Your task to perform on an android device: turn on the 12-hour format for clock Image 0: 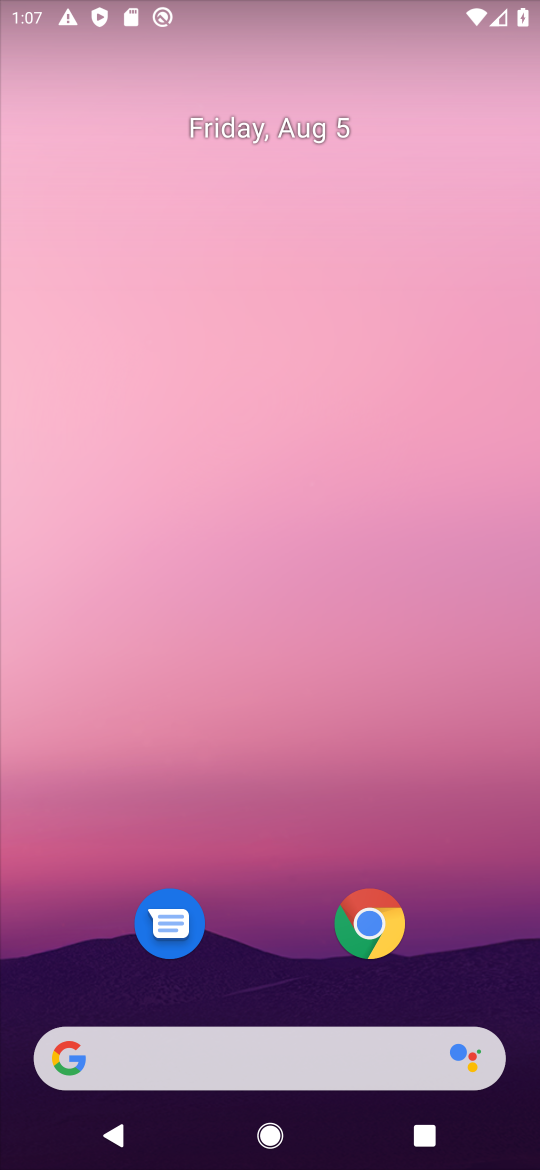
Step 0: drag from (269, 975) to (197, 58)
Your task to perform on an android device: turn on the 12-hour format for clock Image 1: 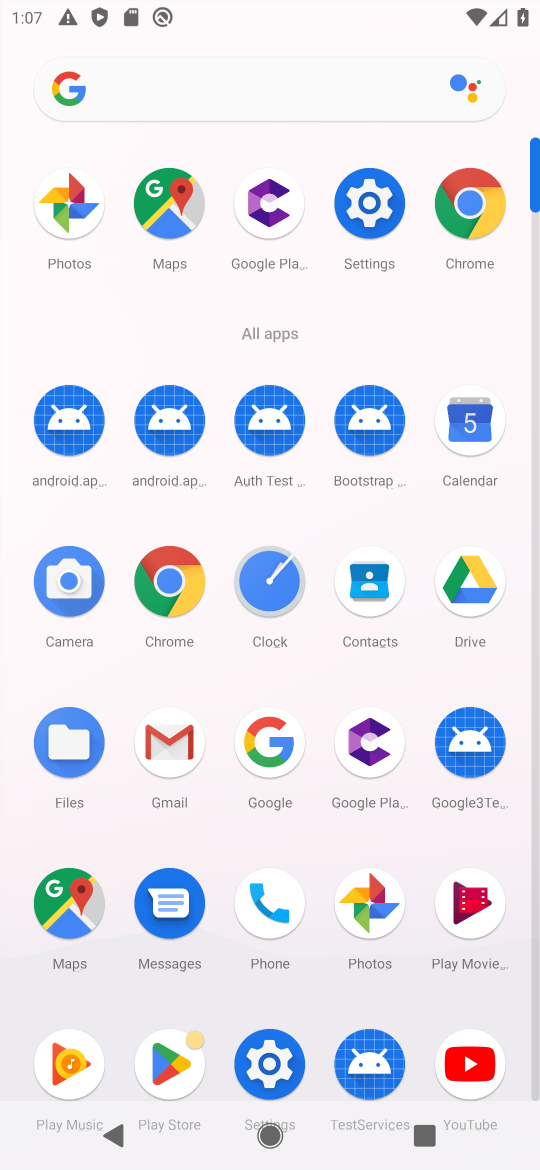
Step 1: click (269, 600)
Your task to perform on an android device: turn on the 12-hour format for clock Image 2: 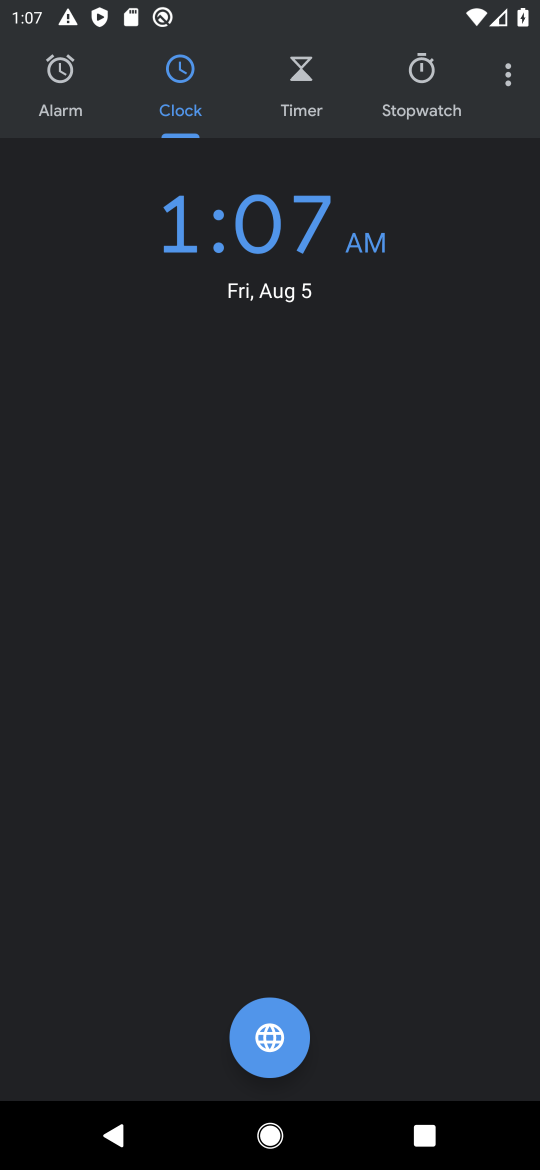
Step 2: drag from (500, 79) to (330, 143)
Your task to perform on an android device: turn on the 12-hour format for clock Image 3: 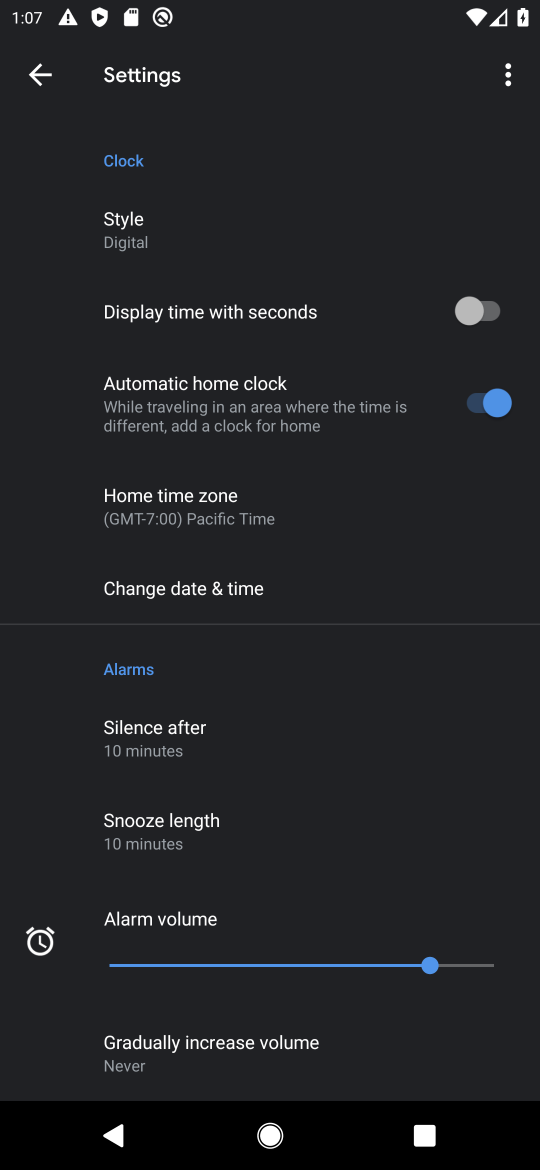
Step 3: click (158, 624)
Your task to perform on an android device: turn on the 12-hour format for clock Image 4: 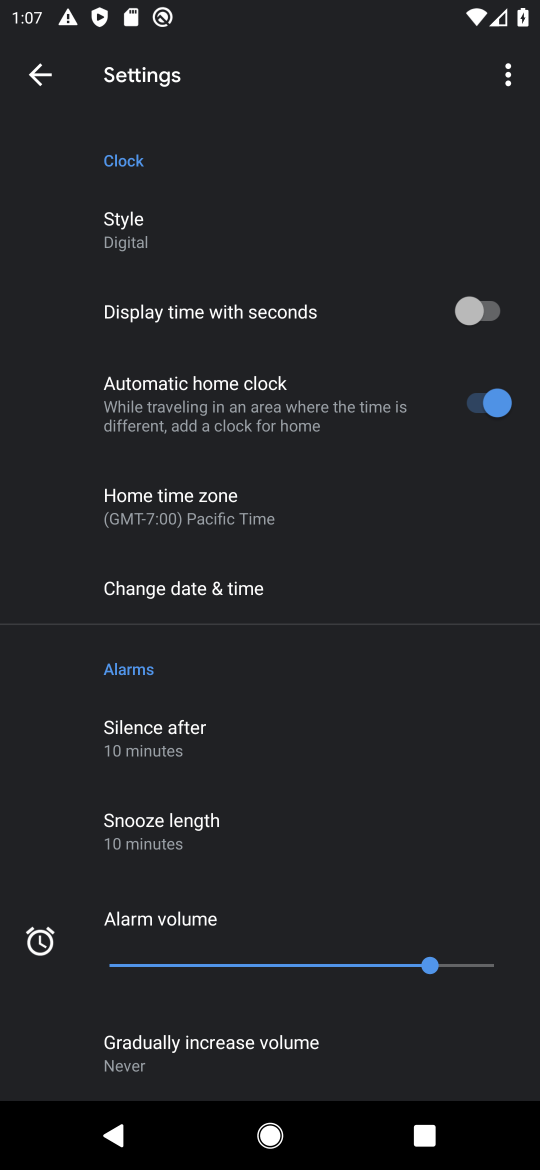
Step 4: click (181, 615)
Your task to perform on an android device: turn on the 12-hour format for clock Image 5: 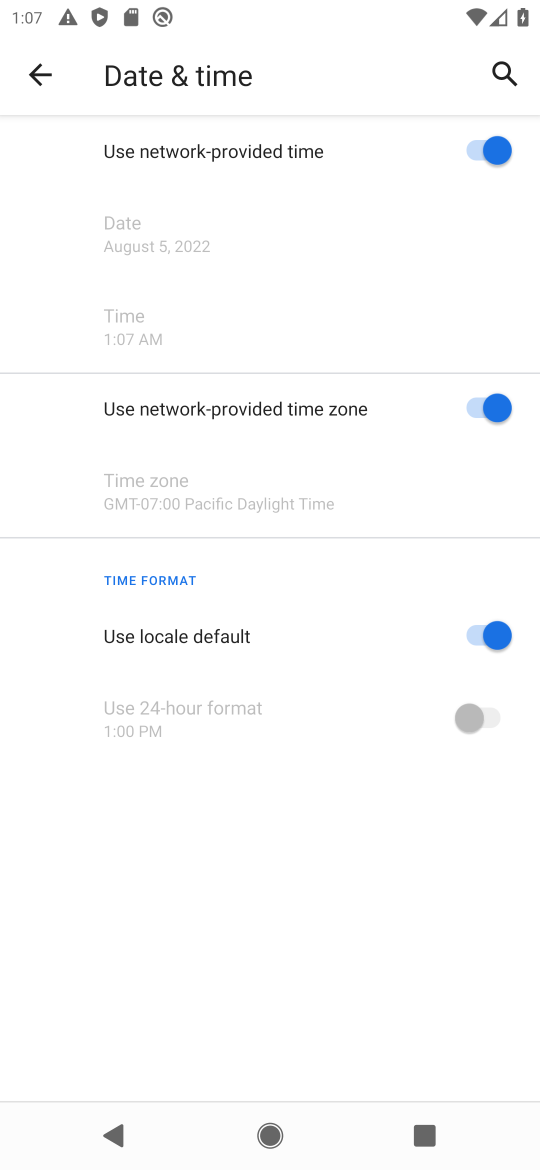
Step 5: click (468, 621)
Your task to perform on an android device: turn on the 12-hour format for clock Image 6: 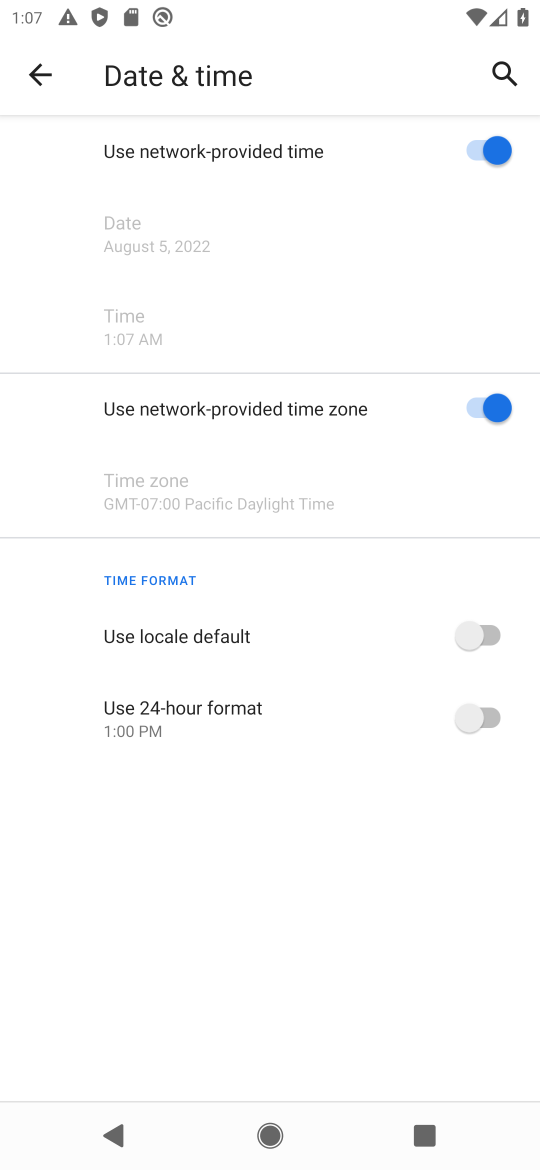
Step 6: task complete